Your task to perform on an android device: turn off improve location accuracy Image 0: 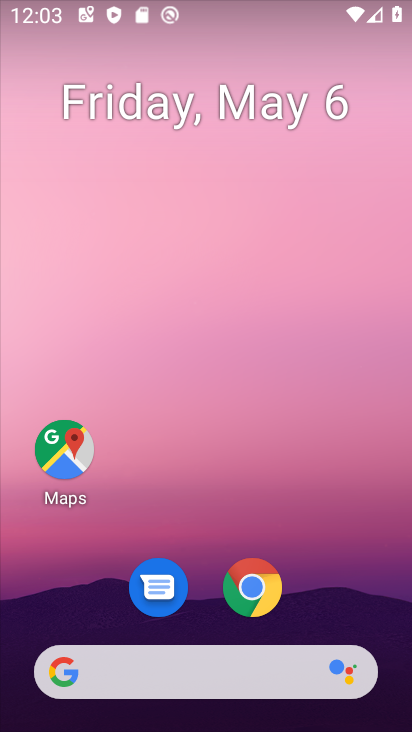
Step 0: drag from (199, 575) to (277, 0)
Your task to perform on an android device: turn off improve location accuracy Image 1: 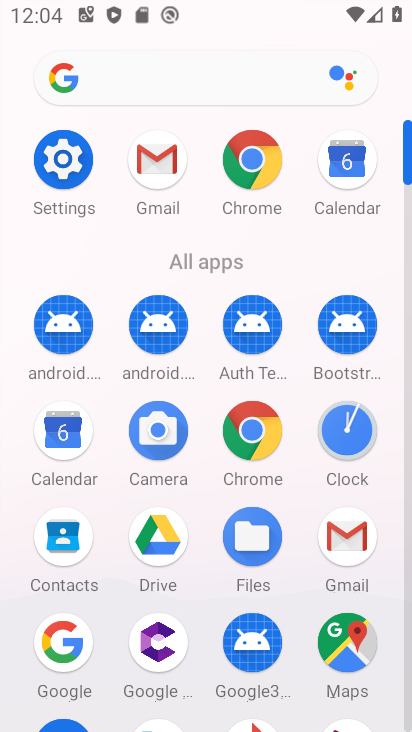
Step 1: click (68, 156)
Your task to perform on an android device: turn off improve location accuracy Image 2: 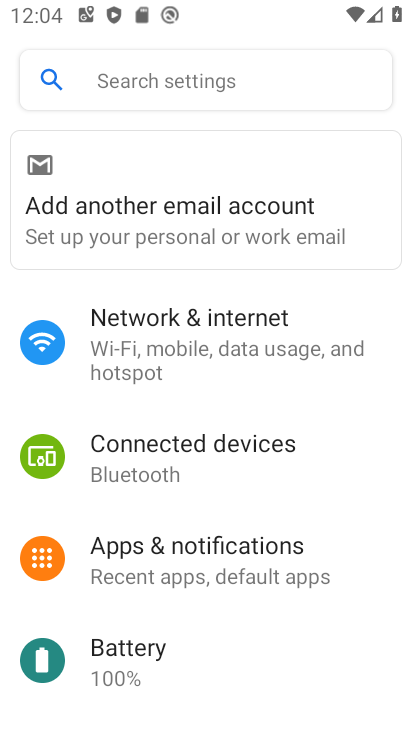
Step 2: drag from (202, 655) to (237, 111)
Your task to perform on an android device: turn off improve location accuracy Image 3: 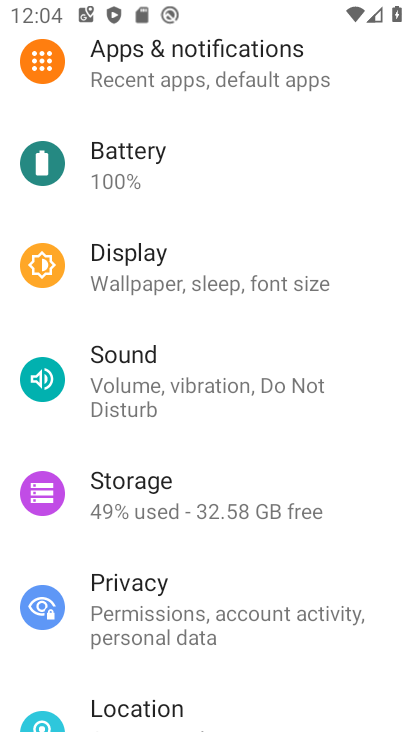
Step 3: click (146, 705)
Your task to perform on an android device: turn off improve location accuracy Image 4: 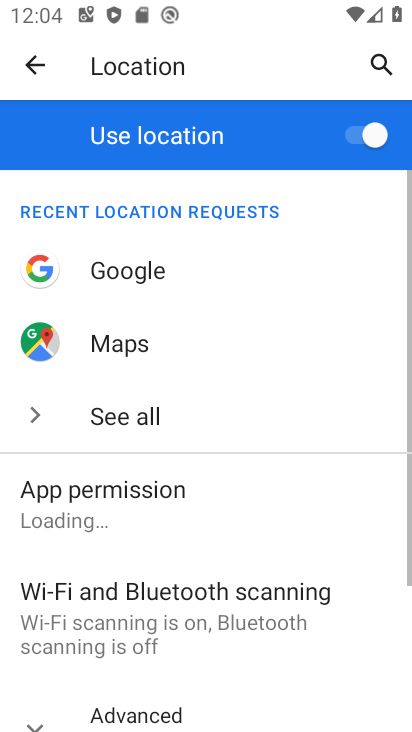
Step 4: drag from (149, 692) to (213, 220)
Your task to perform on an android device: turn off improve location accuracy Image 5: 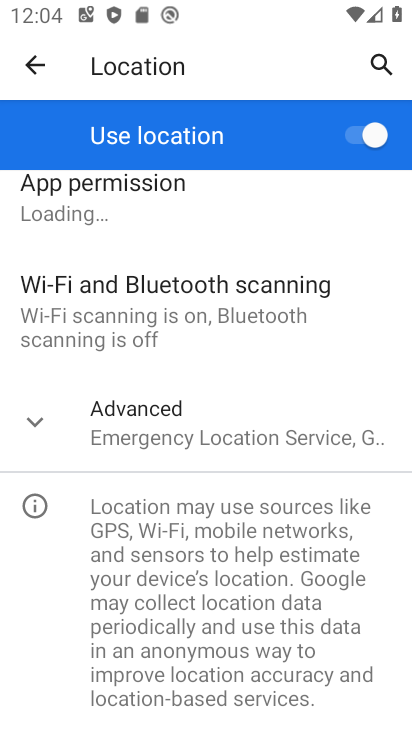
Step 5: click (175, 427)
Your task to perform on an android device: turn off improve location accuracy Image 6: 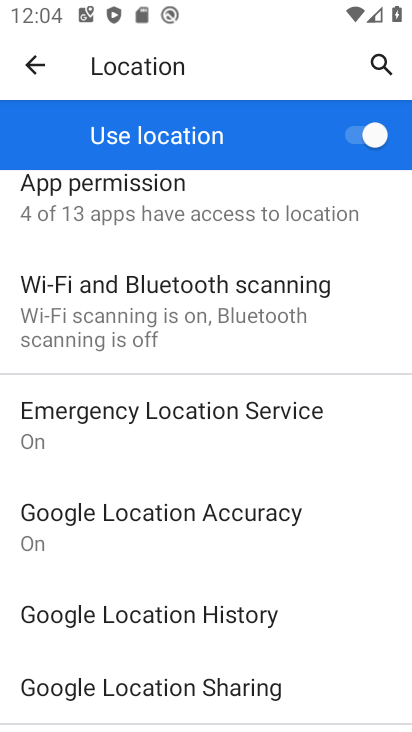
Step 6: click (180, 517)
Your task to perform on an android device: turn off improve location accuracy Image 7: 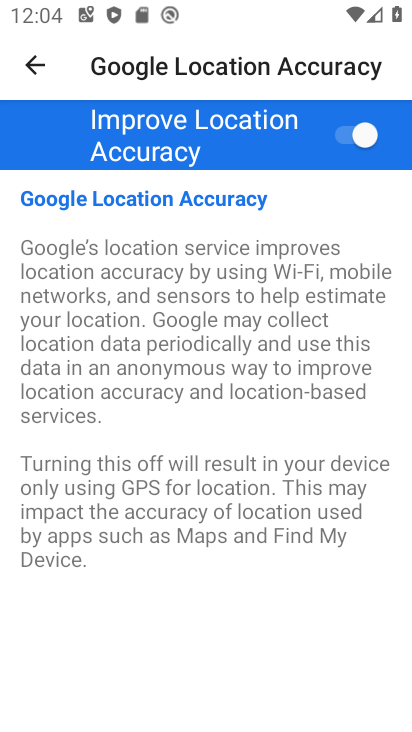
Step 7: click (358, 135)
Your task to perform on an android device: turn off improve location accuracy Image 8: 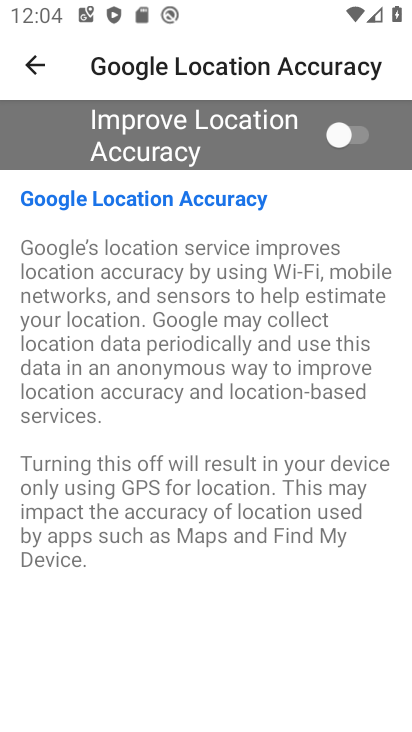
Step 8: task complete